Your task to perform on an android device: add a contact Image 0: 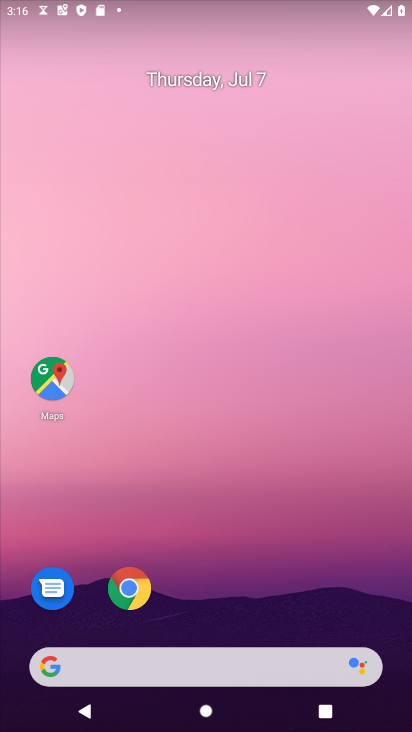
Step 0: drag from (224, 594) to (188, 65)
Your task to perform on an android device: add a contact Image 1: 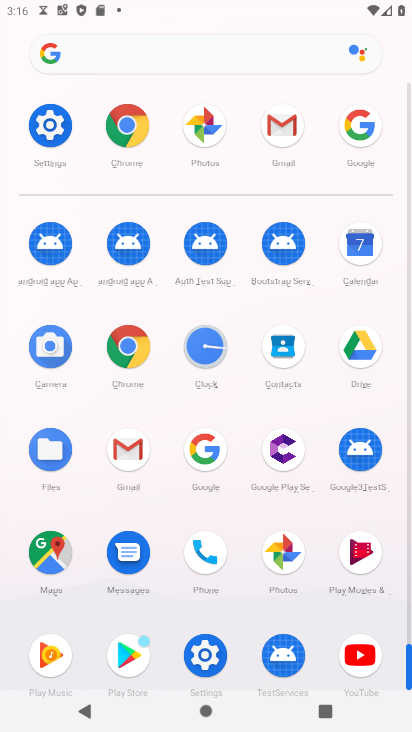
Step 1: click (284, 346)
Your task to perform on an android device: add a contact Image 2: 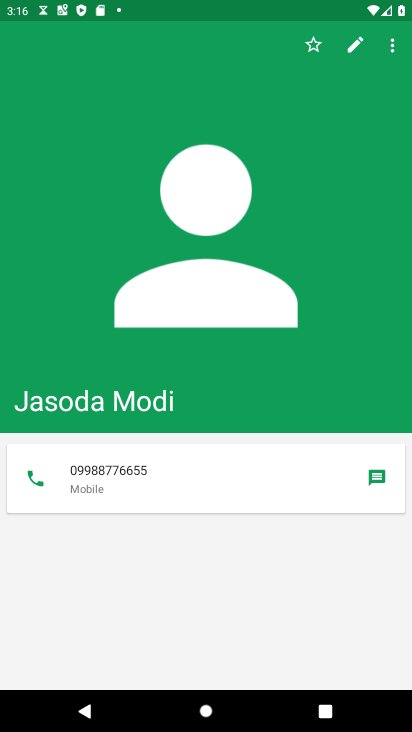
Step 2: press back button
Your task to perform on an android device: add a contact Image 3: 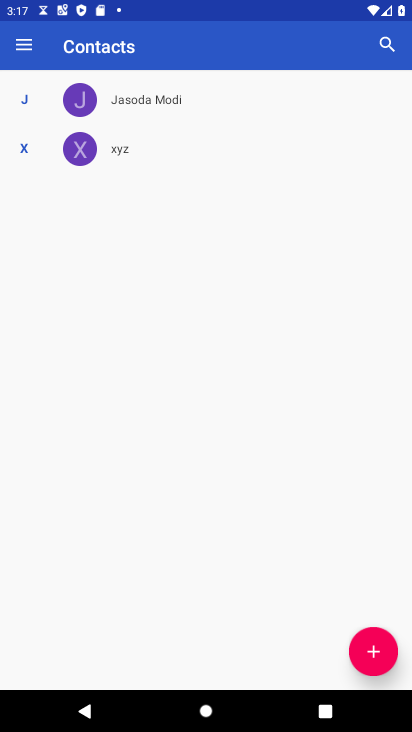
Step 3: click (371, 646)
Your task to perform on an android device: add a contact Image 4: 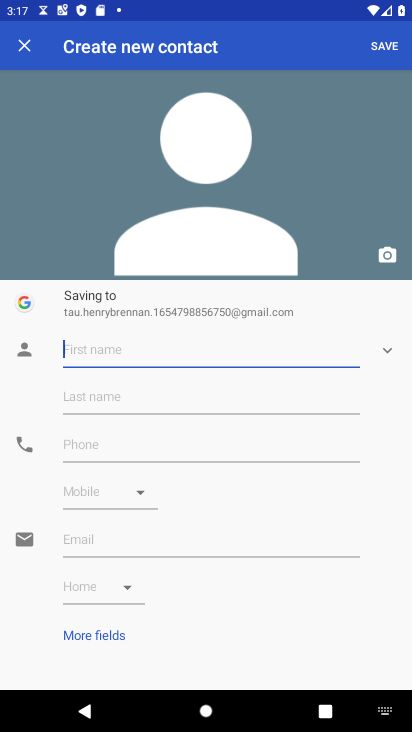
Step 4: click (166, 350)
Your task to perform on an android device: add a contact Image 5: 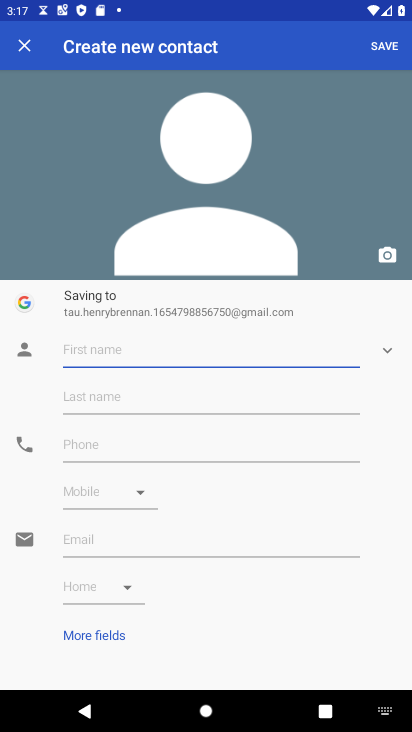
Step 5: type "Abhinav"
Your task to perform on an android device: add a contact Image 6: 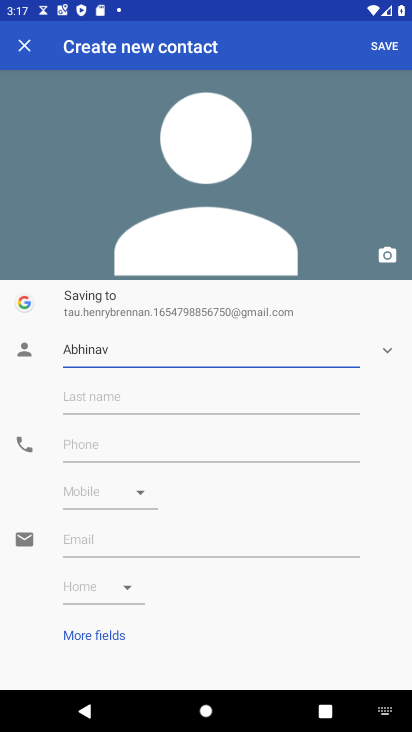
Step 6: click (148, 395)
Your task to perform on an android device: add a contact Image 7: 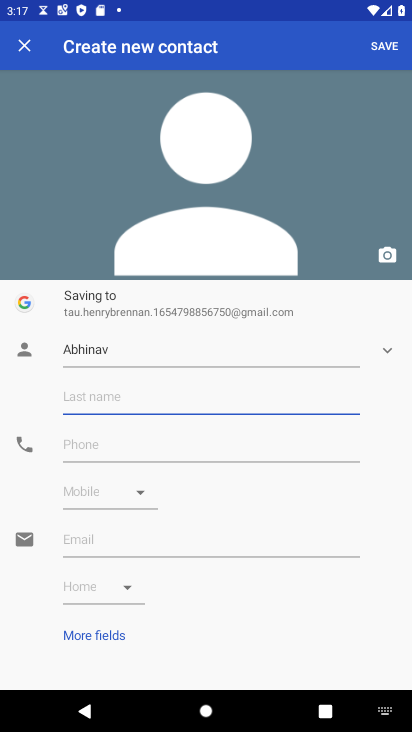
Step 7: type "Bindra"
Your task to perform on an android device: add a contact Image 8: 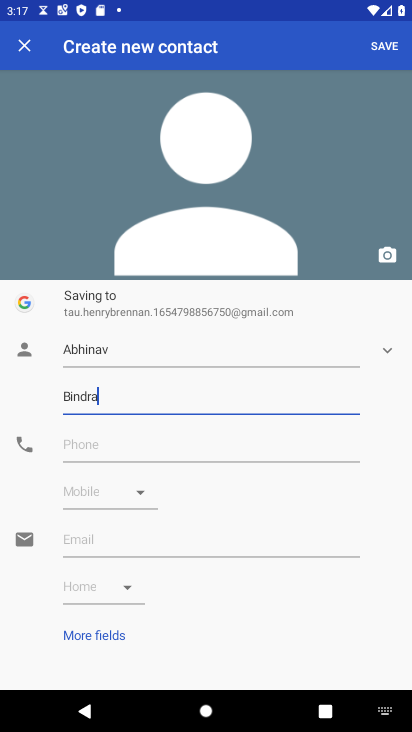
Step 8: click (142, 451)
Your task to perform on an android device: add a contact Image 9: 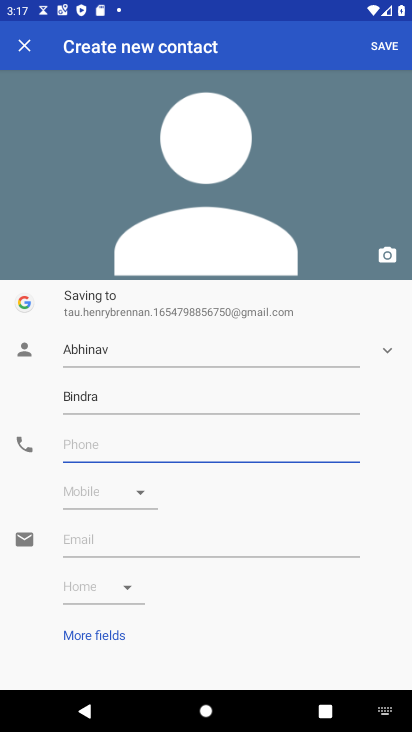
Step 9: type "0987654321"
Your task to perform on an android device: add a contact Image 10: 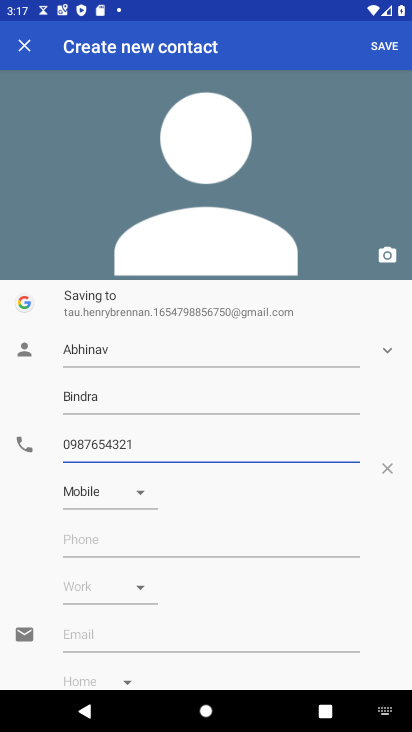
Step 10: click (385, 47)
Your task to perform on an android device: add a contact Image 11: 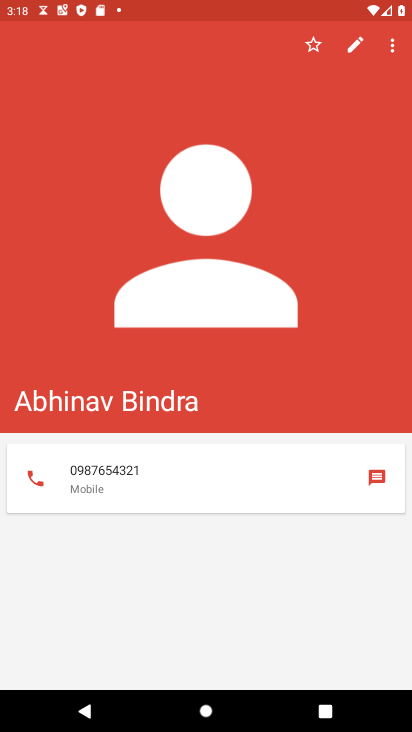
Step 11: task complete